Your task to perform on an android device: see tabs open on other devices in the chrome app Image 0: 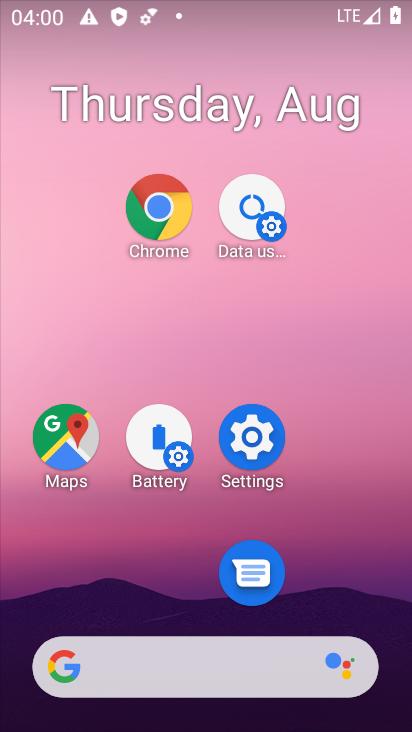
Step 0: drag from (299, 682) to (163, 278)
Your task to perform on an android device: see tabs open on other devices in the chrome app Image 1: 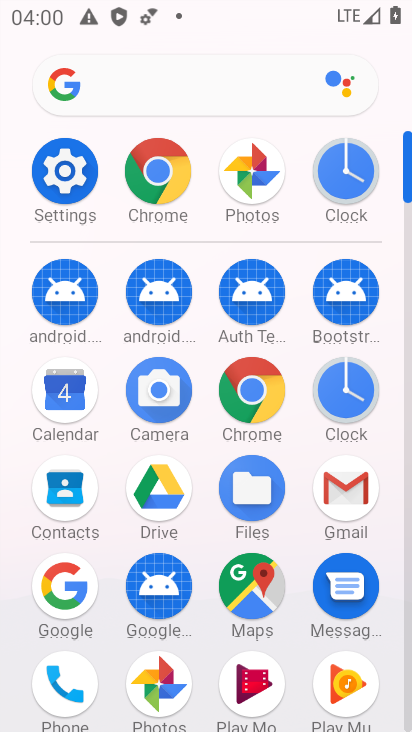
Step 1: click (161, 162)
Your task to perform on an android device: see tabs open on other devices in the chrome app Image 2: 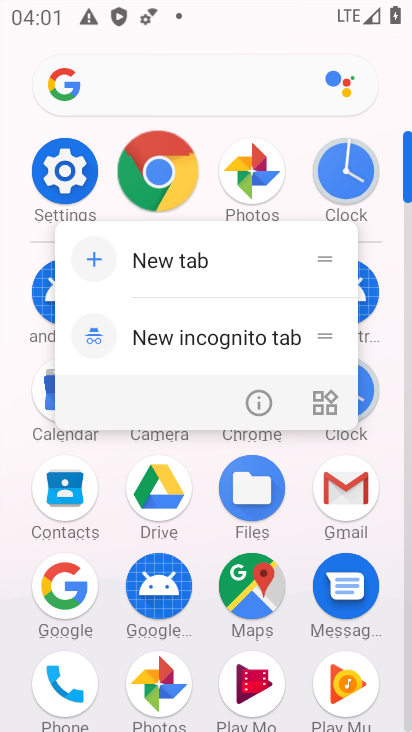
Step 2: click (161, 162)
Your task to perform on an android device: see tabs open on other devices in the chrome app Image 3: 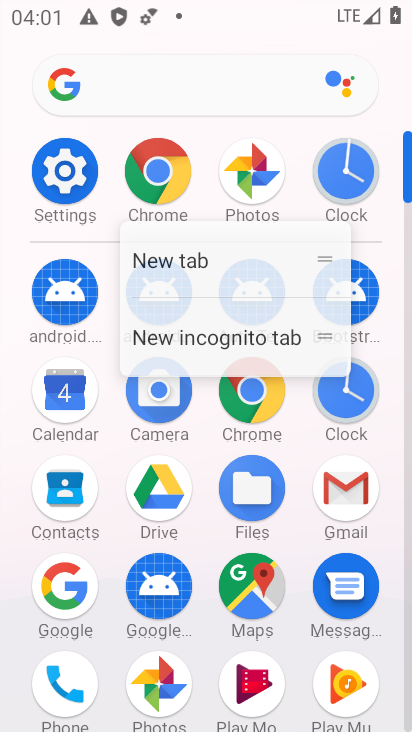
Step 3: click (161, 162)
Your task to perform on an android device: see tabs open on other devices in the chrome app Image 4: 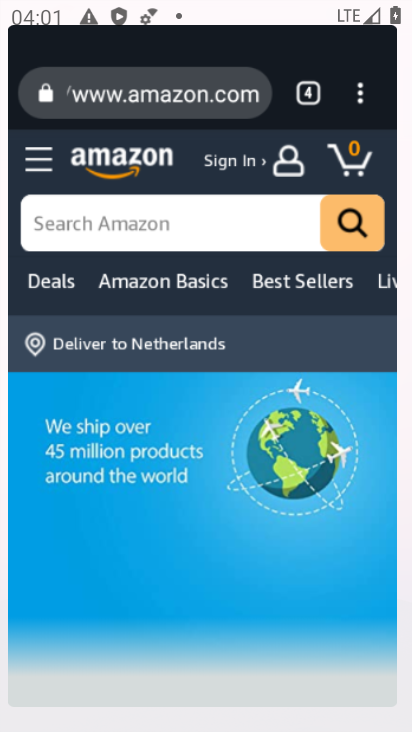
Step 4: click (167, 251)
Your task to perform on an android device: see tabs open on other devices in the chrome app Image 5: 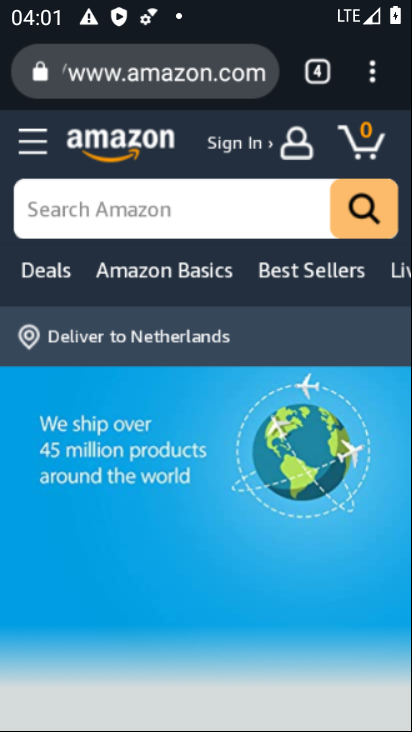
Step 5: click (152, 170)
Your task to perform on an android device: see tabs open on other devices in the chrome app Image 6: 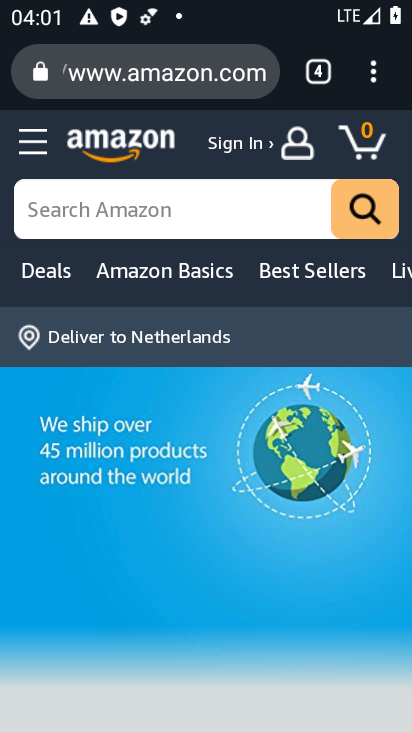
Step 6: press back button
Your task to perform on an android device: see tabs open on other devices in the chrome app Image 7: 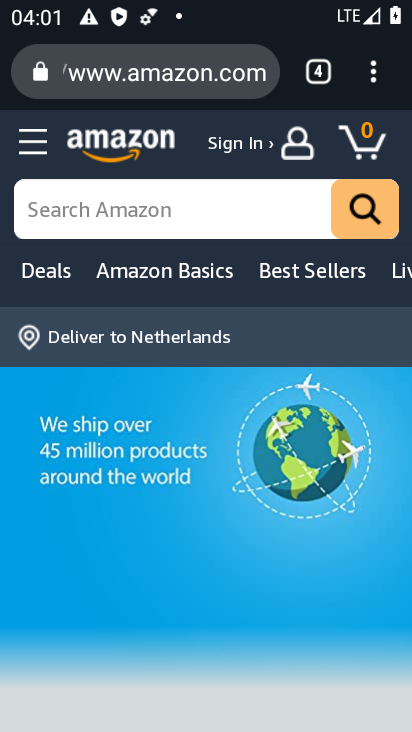
Step 7: press back button
Your task to perform on an android device: see tabs open on other devices in the chrome app Image 8: 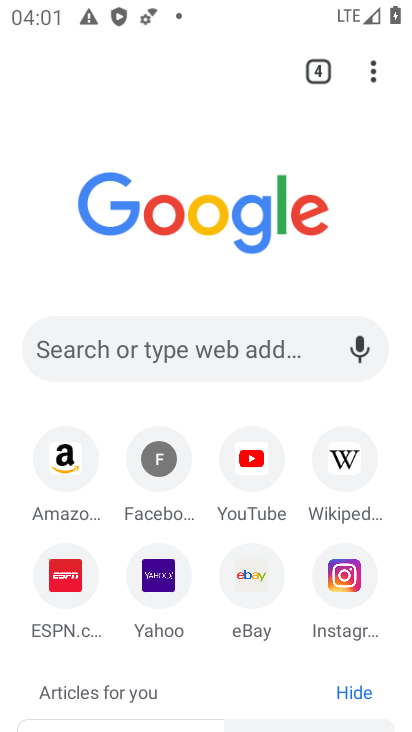
Step 8: press back button
Your task to perform on an android device: see tabs open on other devices in the chrome app Image 9: 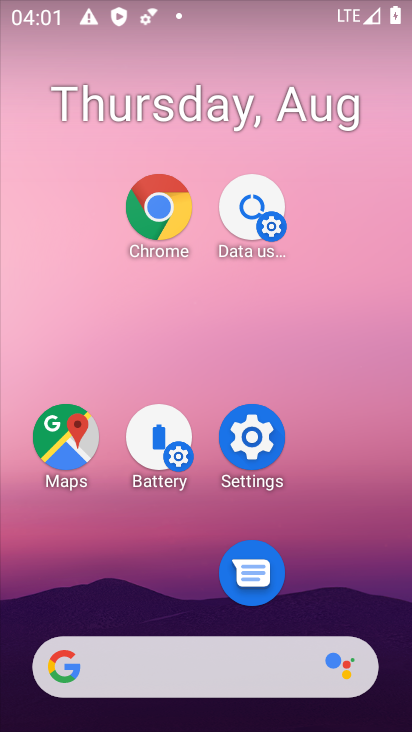
Step 9: drag from (278, 622) to (164, 153)
Your task to perform on an android device: see tabs open on other devices in the chrome app Image 10: 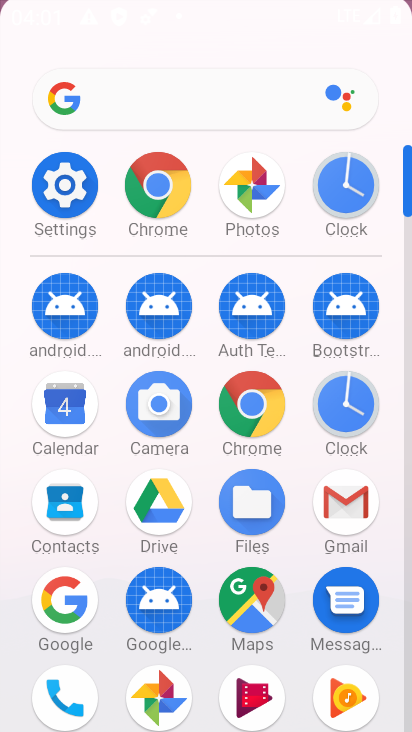
Step 10: drag from (219, 454) to (214, 138)
Your task to perform on an android device: see tabs open on other devices in the chrome app Image 11: 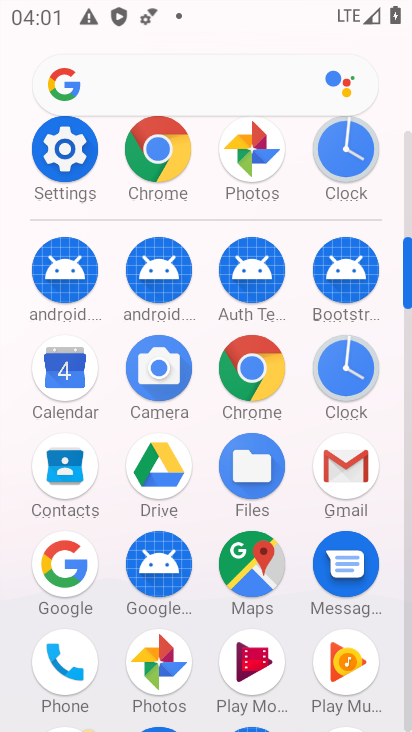
Step 11: click (157, 177)
Your task to perform on an android device: see tabs open on other devices in the chrome app Image 12: 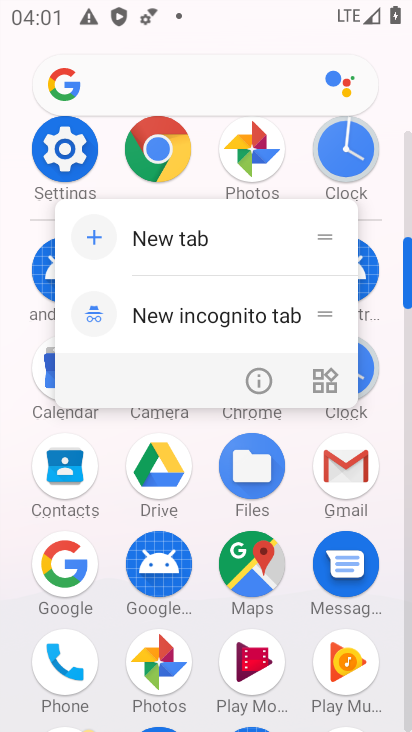
Step 12: click (163, 248)
Your task to perform on an android device: see tabs open on other devices in the chrome app Image 13: 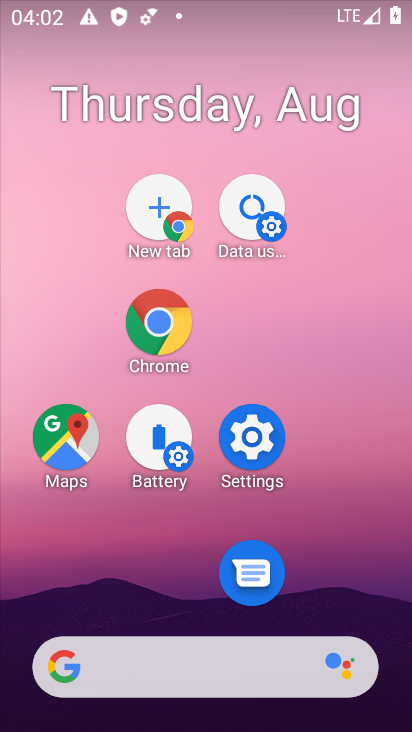
Step 13: drag from (233, 535) to (197, 104)
Your task to perform on an android device: see tabs open on other devices in the chrome app Image 14: 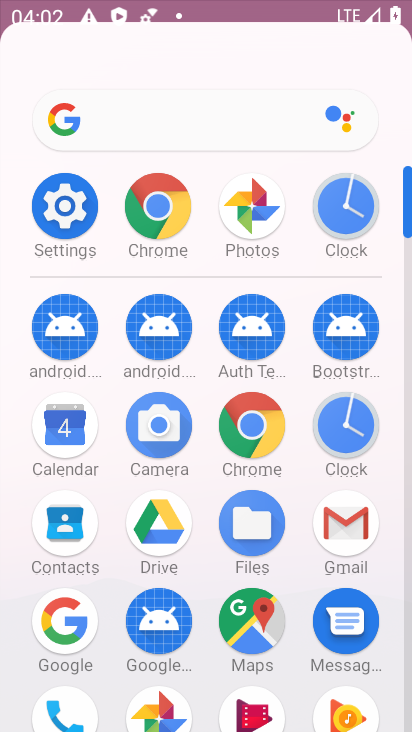
Step 14: drag from (234, 397) to (159, 132)
Your task to perform on an android device: see tabs open on other devices in the chrome app Image 15: 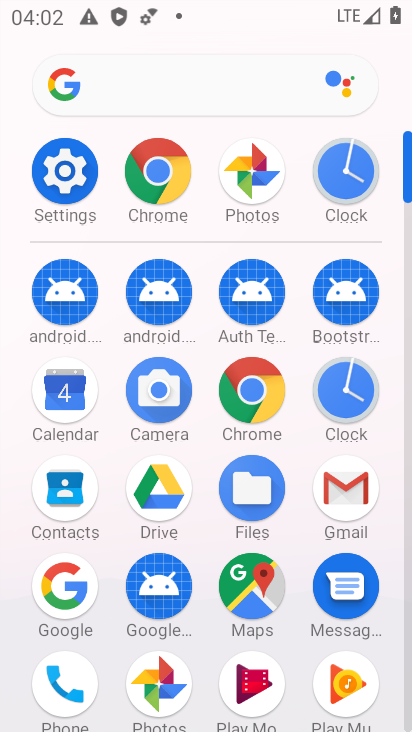
Step 15: drag from (229, 471) to (240, 160)
Your task to perform on an android device: see tabs open on other devices in the chrome app Image 16: 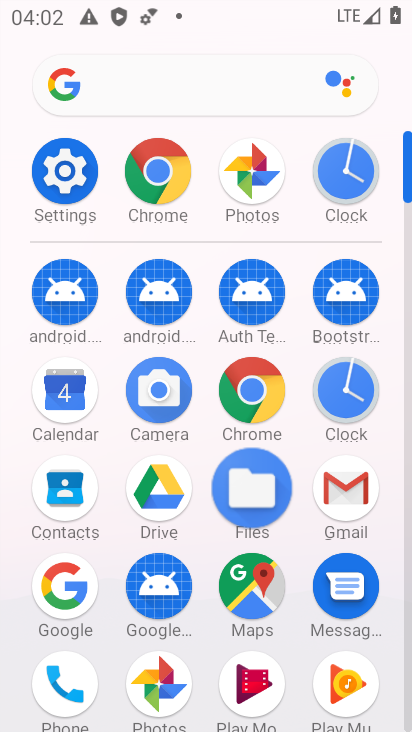
Step 16: click (270, 168)
Your task to perform on an android device: see tabs open on other devices in the chrome app Image 17: 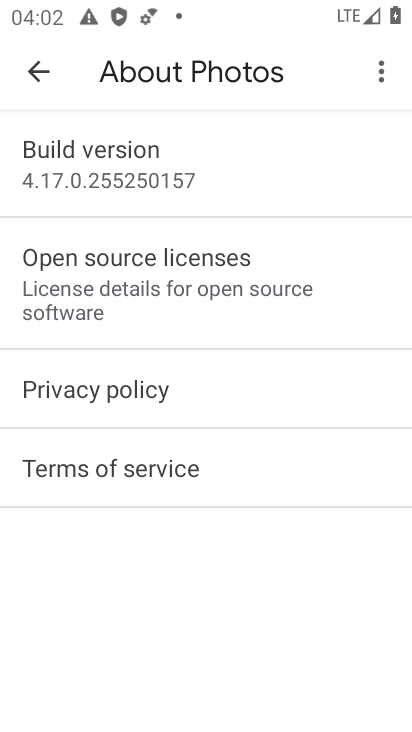
Step 17: click (39, 69)
Your task to perform on an android device: see tabs open on other devices in the chrome app Image 18: 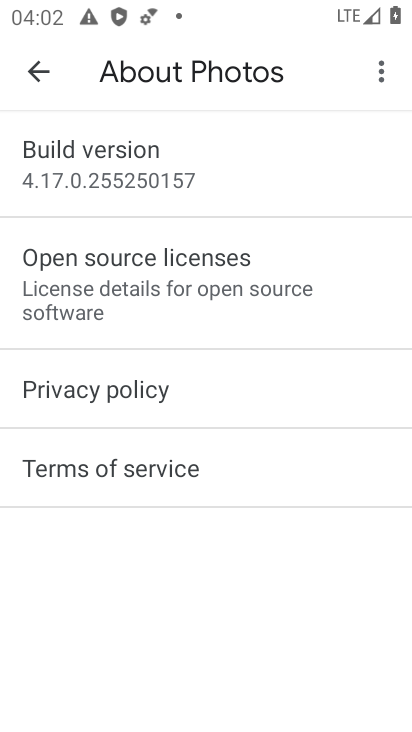
Step 18: click (33, 80)
Your task to perform on an android device: see tabs open on other devices in the chrome app Image 19: 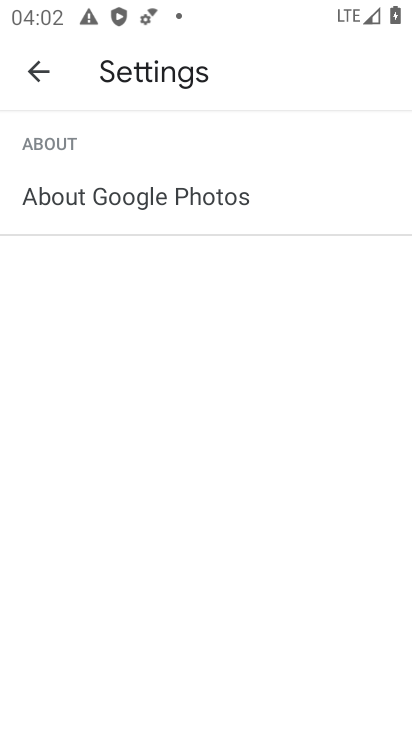
Step 19: click (48, 72)
Your task to perform on an android device: see tabs open on other devices in the chrome app Image 20: 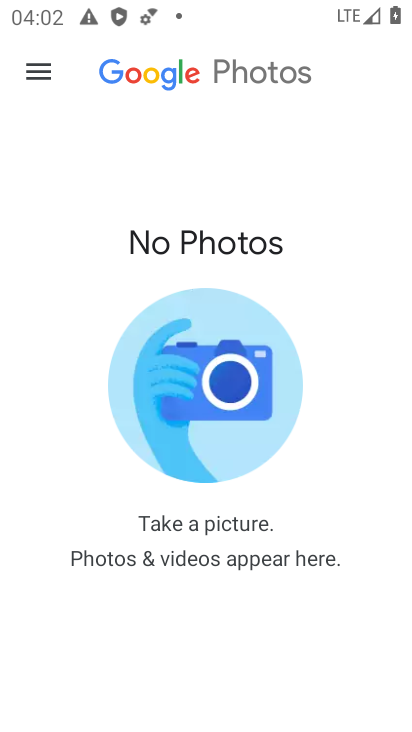
Step 20: click (39, 66)
Your task to perform on an android device: see tabs open on other devices in the chrome app Image 21: 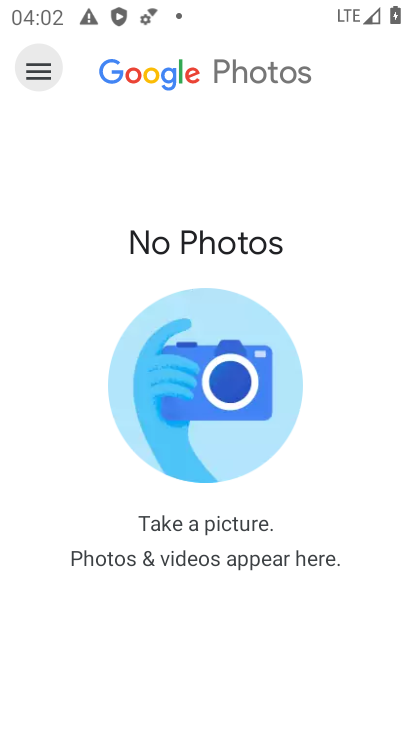
Step 21: click (40, 66)
Your task to perform on an android device: see tabs open on other devices in the chrome app Image 22: 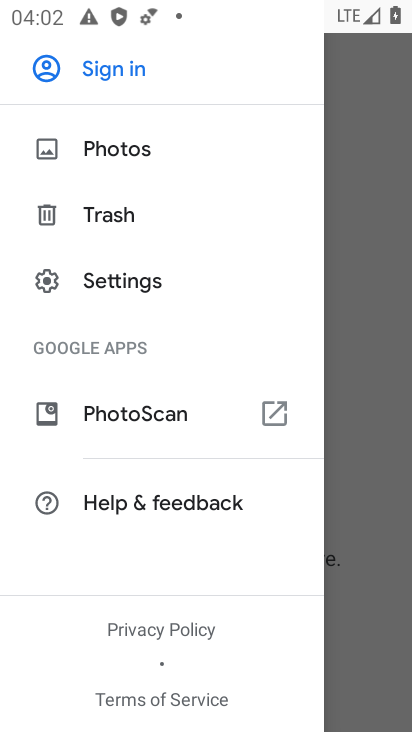
Step 22: drag from (190, 368) to (94, 273)
Your task to perform on an android device: see tabs open on other devices in the chrome app Image 23: 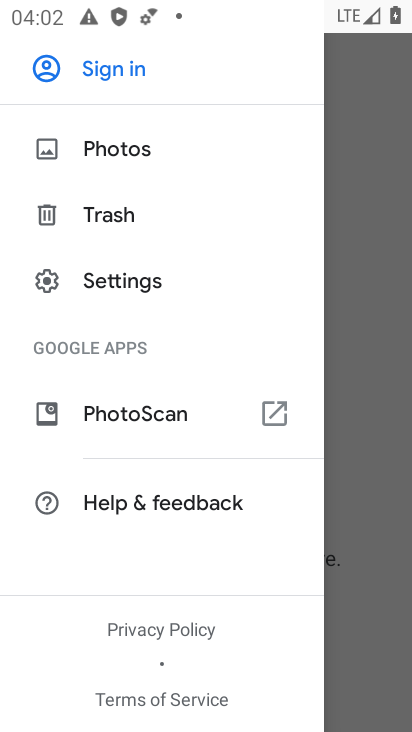
Step 23: click (348, 309)
Your task to perform on an android device: see tabs open on other devices in the chrome app Image 24: 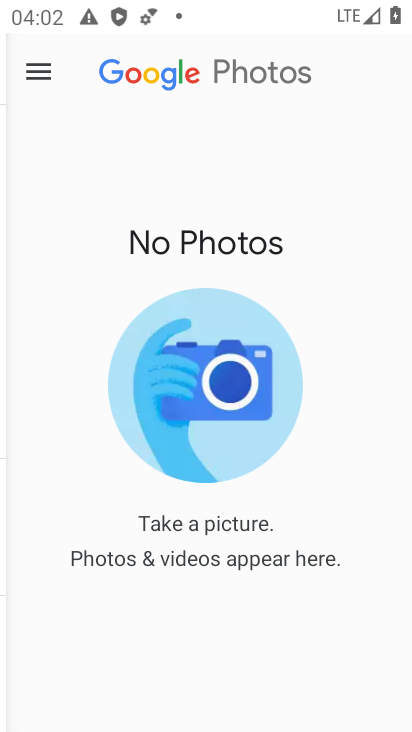
Step 24: press back button
Your task to perform on an android device: see tabs open on other devices in the chrome app Image 25: 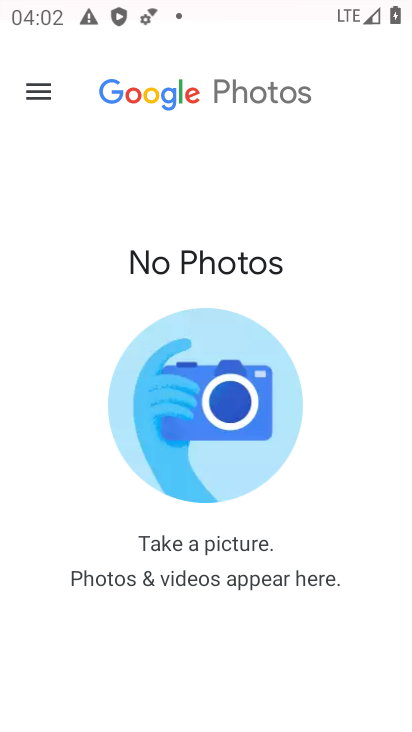
Step 25: press back button
Your task to perform on an android device: see tabs open on other devices in the chrome app Image 26: 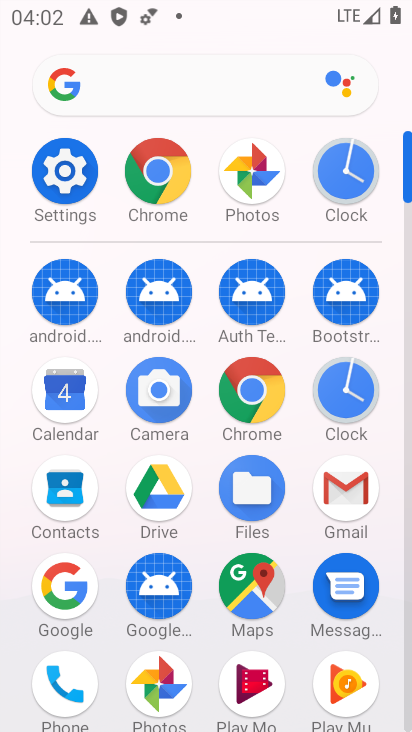
Step 26: press back button
Your task to perform on an android device: see tabs open on other devices in the chrome app Image 27: 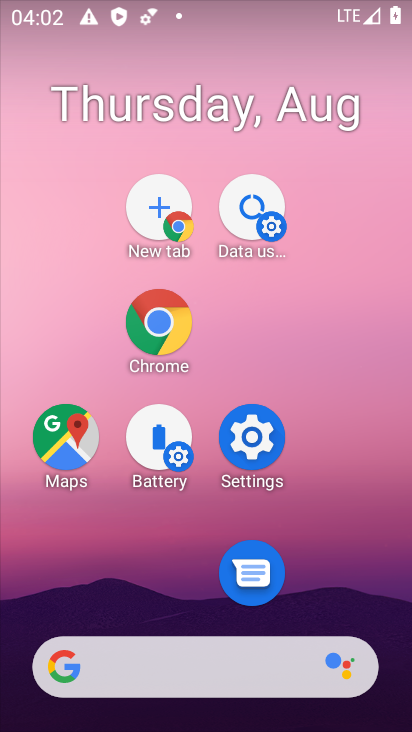
Step 27: drag from (174, 561) to (38, 66)
Your task to perform on an android device: see tabs open on other devices in the chrome app Image 28: 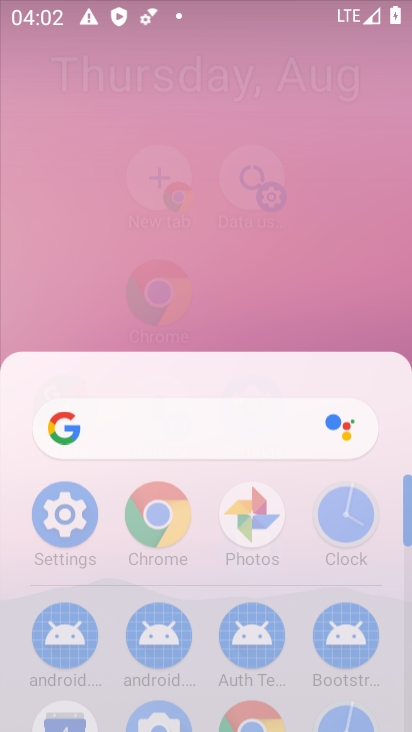
Step 28: drag from (94, 454) to (44, 113)
Your task to perform on an android device: see tabs open on other devices in the chrome app Image 29: 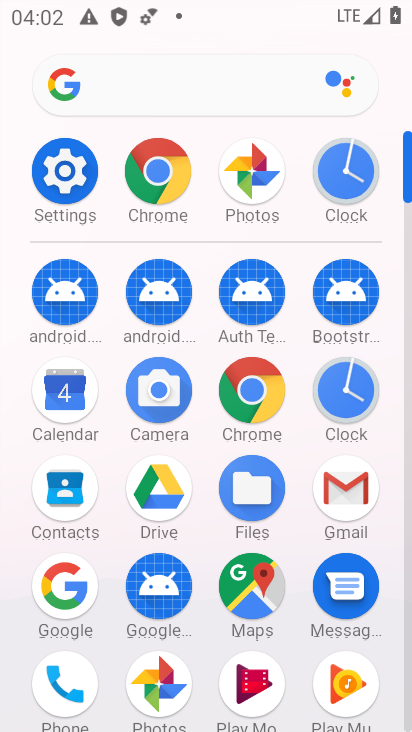
Step 29: drag from (219, 469) to (177, 156)
Your task to perform on an android device: see tabs open on other devices in the chrome app Image 30: 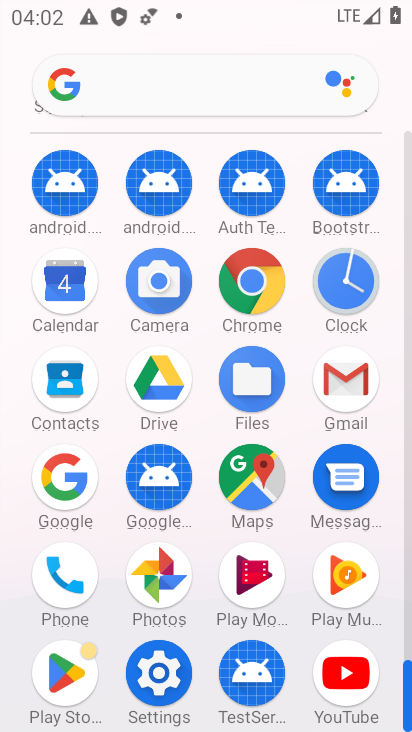
Step 30: click (250, 287)
Your task to perform on an android device: see tabs open on other devices in the chrome app Image 31: 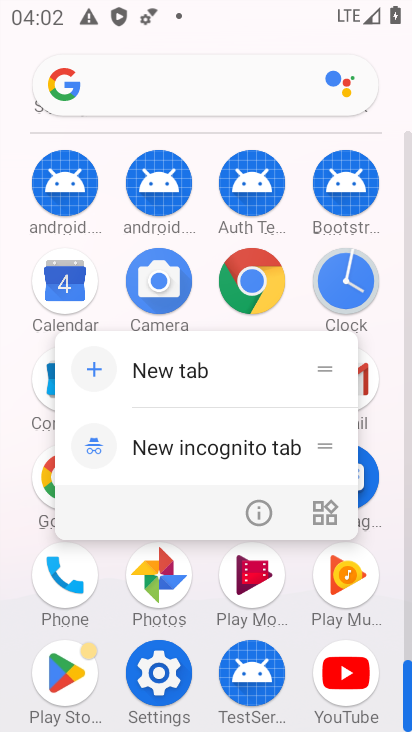
Step 31: click (250, 289)
Your task to perform on an android device: see tabs open on other devices in the chrome app Image 32: 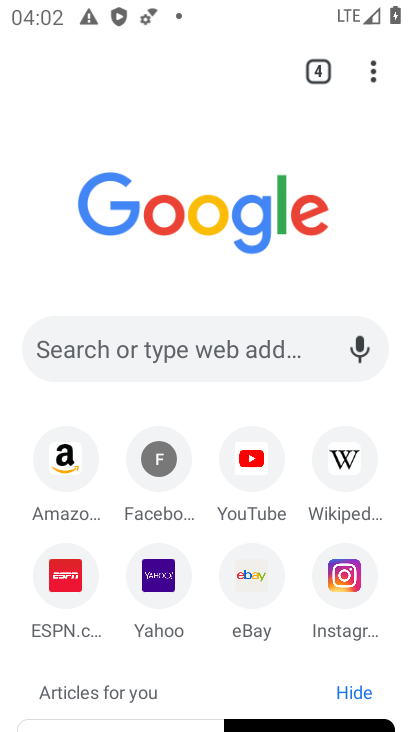
Step 32: click (373, 84)
Your task to perform on an android device: see tabs open on other devices in the chrome app Image 33: 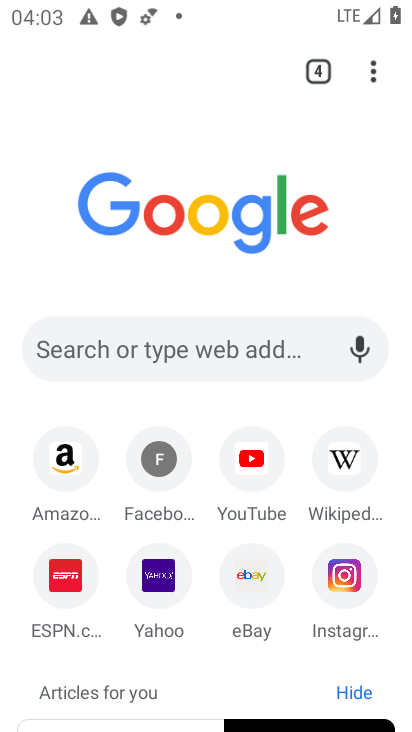
Step 33: drag from (369, 78) to (148, 134)
Your task to perform on an android device: see tabs open on other devices in the chrome app Image 34: 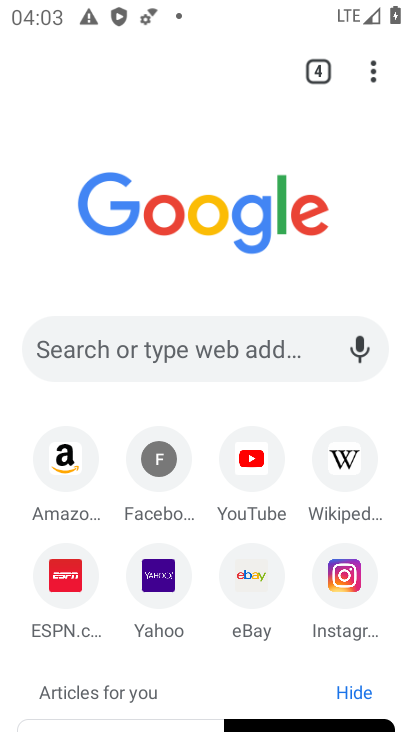
Step 34: click (147, 133)
Your task to perform on an android device: see tabs open on other devices in the chrome app Image 35: 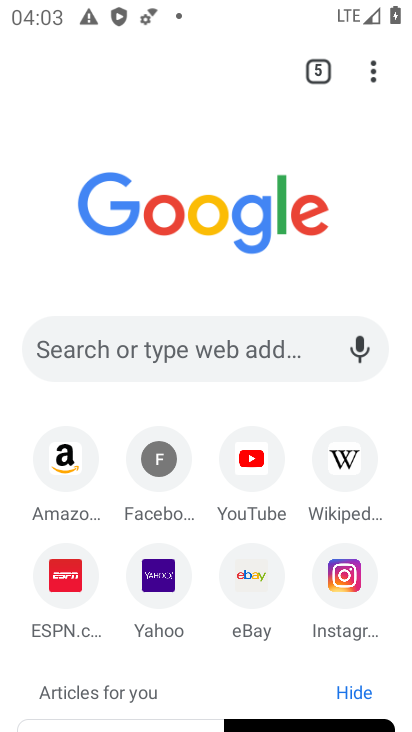
Step 35: drag from (368, 72) to (141, 340)
Your task to perform on an android device: see tabs open on other devices in the chrome app Image 36: 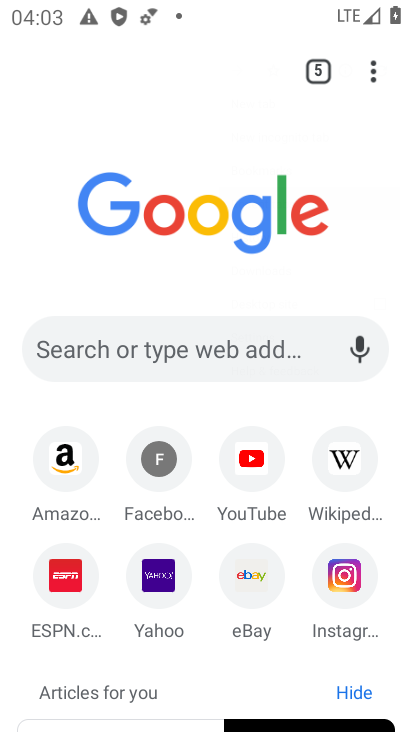
Step 36: click (144, 347)
Your task to perform on an android device: see tabs open on other devices in the chrome app Image 37: 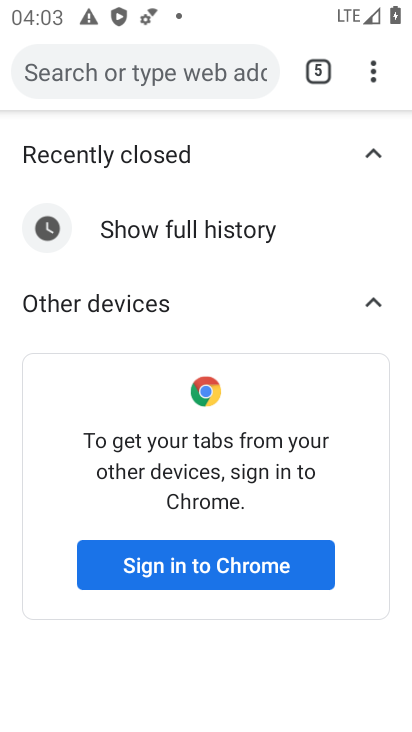
Step 37: task complete